Your task to perform on an android device: Open location settings Image 0: 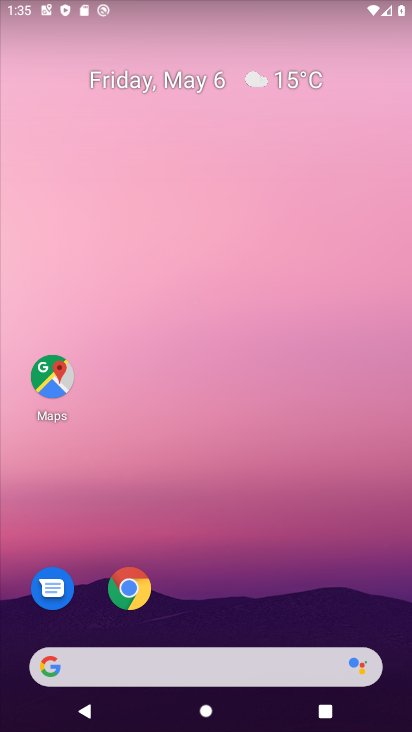
Step 0: drag from (207, 598) to (248, 215)
Your task to perform on an android device: Open location settings Image 1: 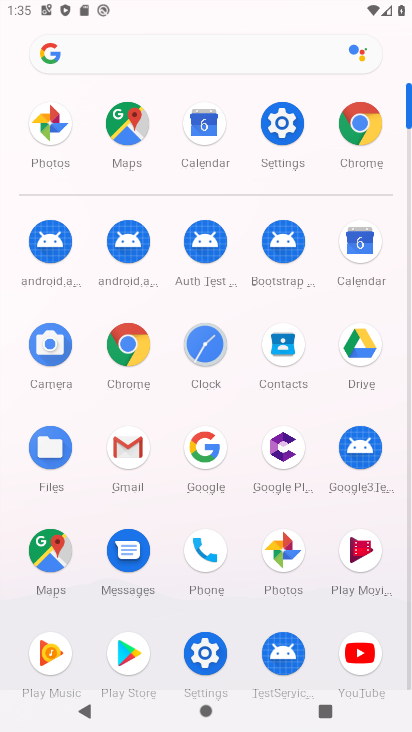
Step 1: click (199, 645)
Your task to perform on an android device: Open location settings Image 2: 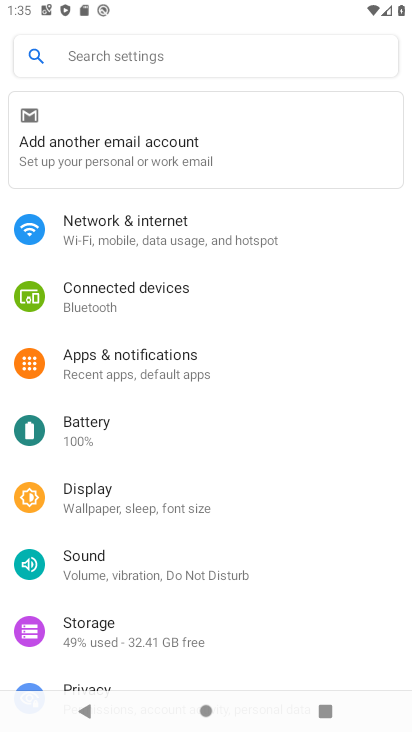
Step 2: drag from (216, 496) to (226, 264)
Your task to perform on an android device: Open location settings Image 3: 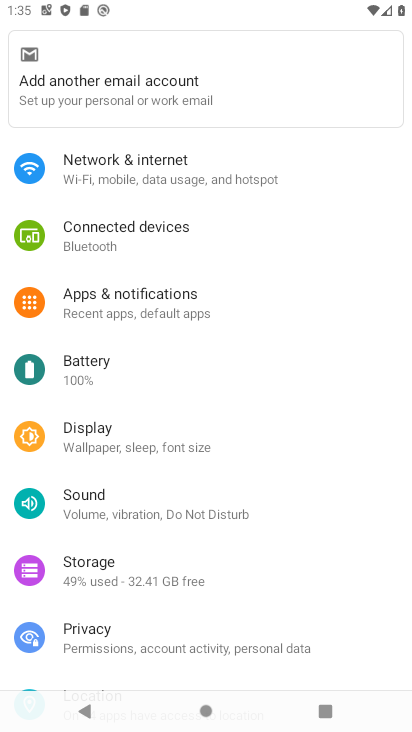
Step 3: drag from (234, 573) to (242, 291)
Your task to perform on an android device: Open location settings Image 4: 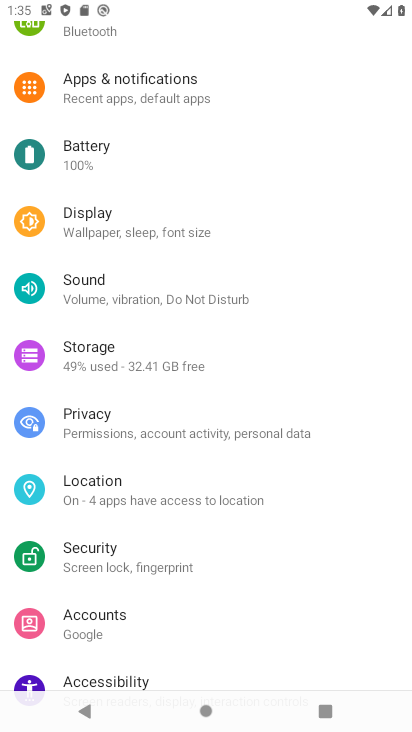
Step 4: click (90, 492)
Your task to perform on an android device: Open location settings Image 5: 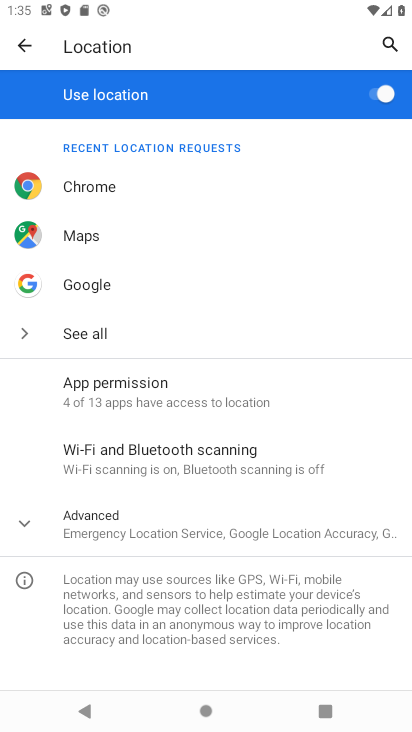
Step 5: click (104, 537)
Your task to perform on an android device: Open location settings Image 6: 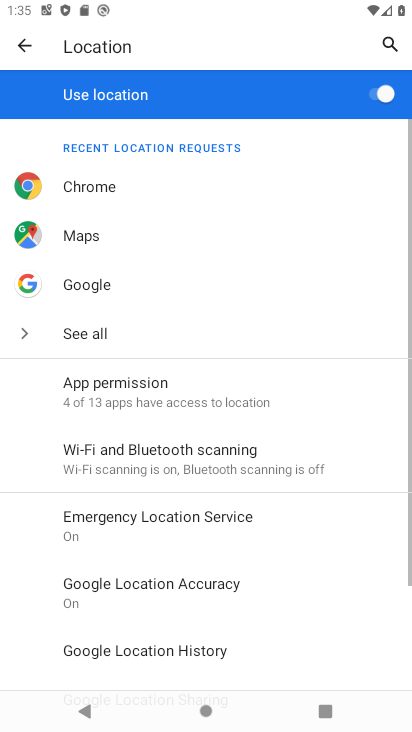
Step 6: drag from (282, 670) to (284, 184)
Your task to perform on an android device: Open location settings Image 7: 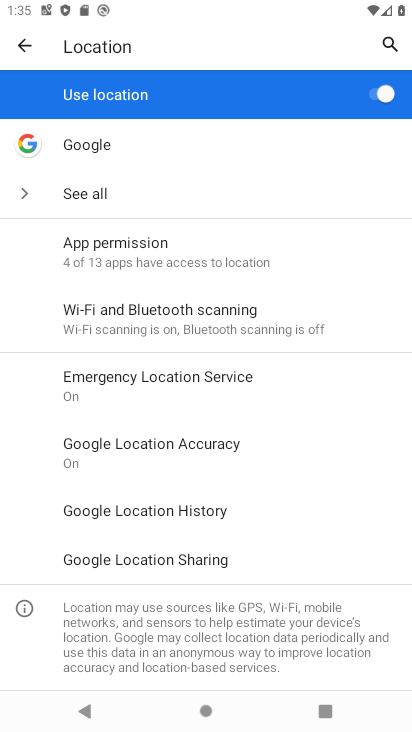
Step 7: click (152, 511)
Your task to perform on an android device: Open location settings Image 8: 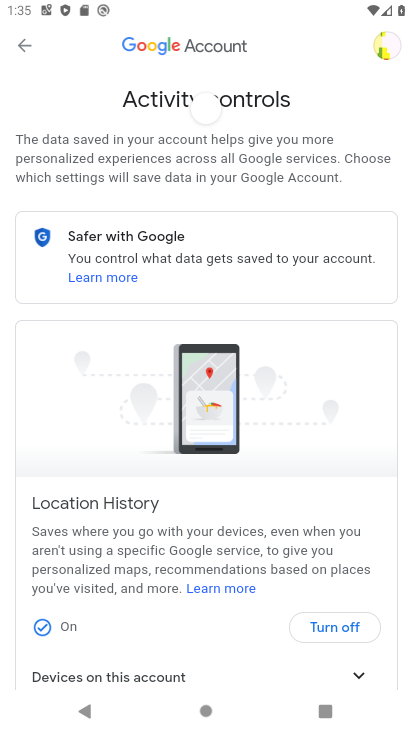
Step 8: task complete